Your task to perform on an android device: Open display settings Image 0: 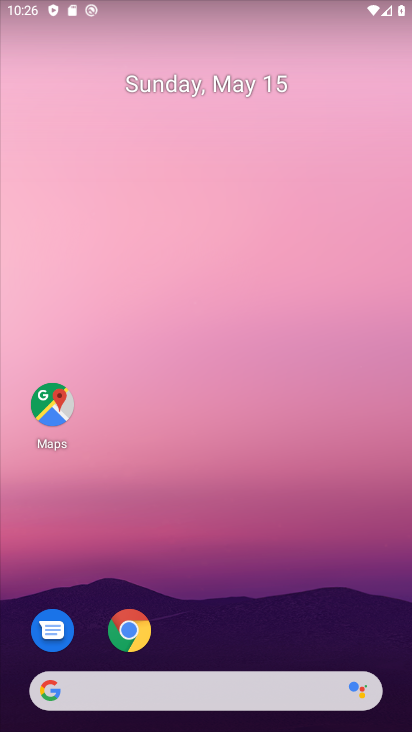
Step 0: drag from (228, 602) to (234, 149)
Your task to perform on an android device: Open display settings Image 1: 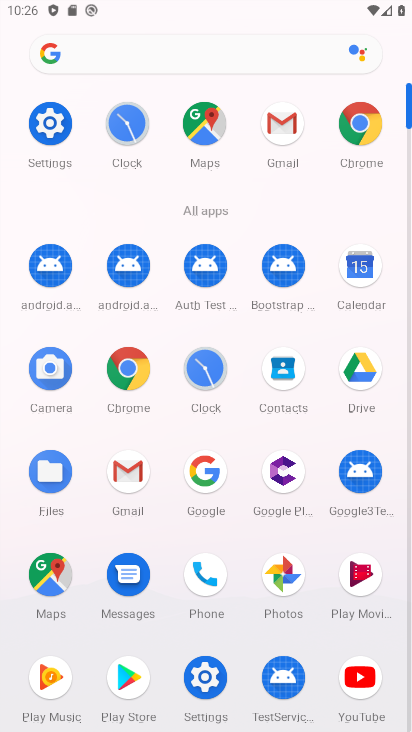
Step 1: click (205, 676)
Your task to perform on an android device: Open display settings Image 2: 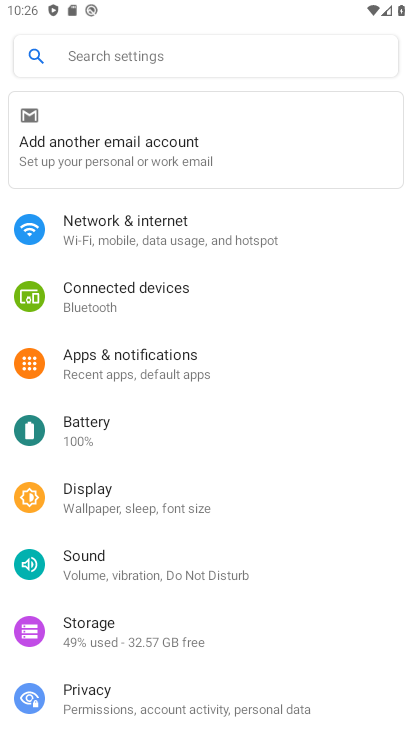
Step 2: click (94, 493)
Your task to perform on an android device: Open display settings Image 3: 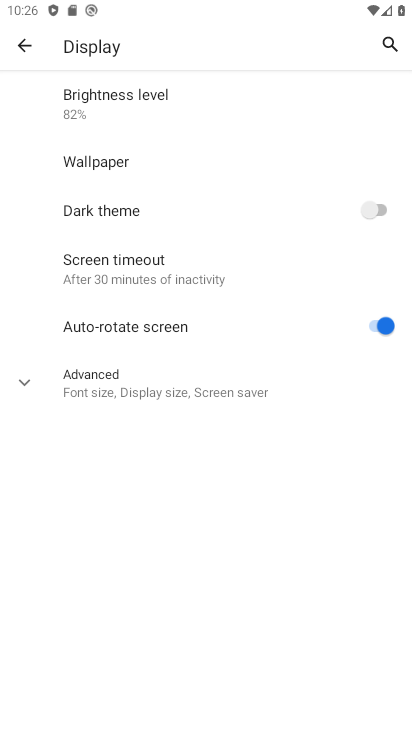
Step 3: task complete